Your task to perform on an android device: Open Google Chrome Image 0: 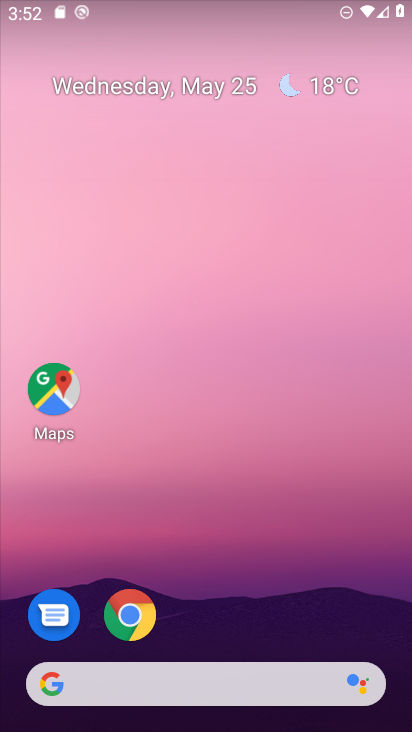
Step 0: click (135, 620)
Your task to perform on an android device: Open Google Chrome Image 1: 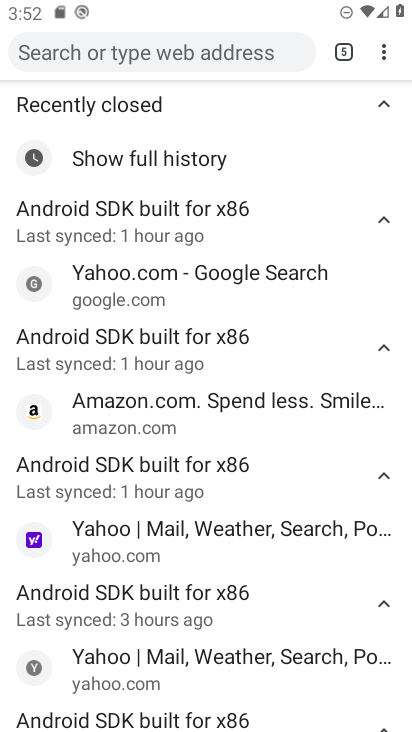
Step 1: click (376, 42)
Your task to perform on an android device: Open Google Chrome Image 2: 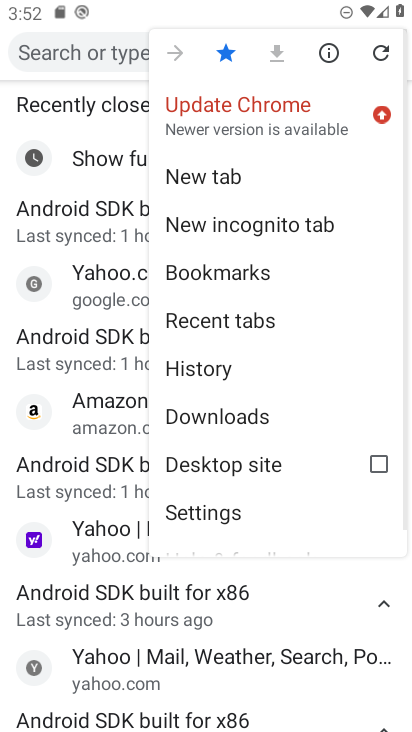
Step 2: click (248, 169)
Your task to perform on an android device: Open Google Chrome Image 3: 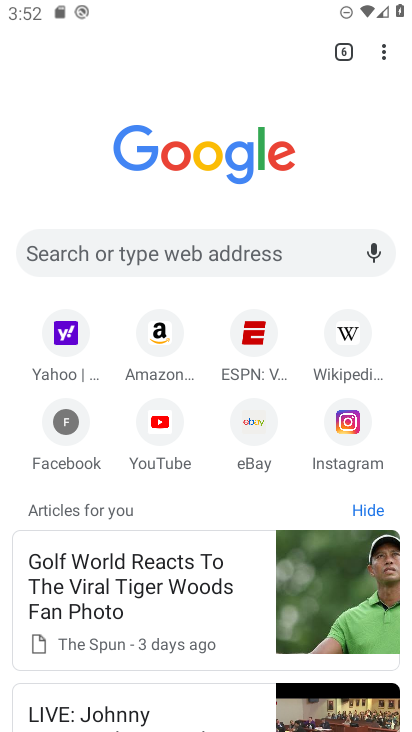
Step 3: task complete